Your task to perform on an android device: stop showing notifications on the lock screen Image 0: 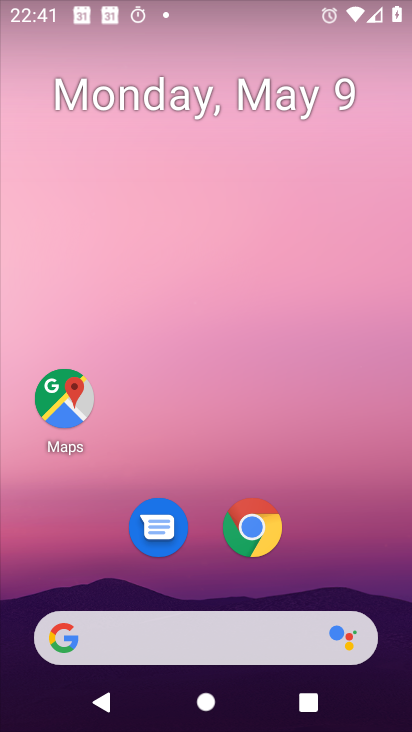
Step 0: drag from (191, 578) to (239, 97)
Your task to perform on an android device: stop showing notifications on the lock screen Image 1: 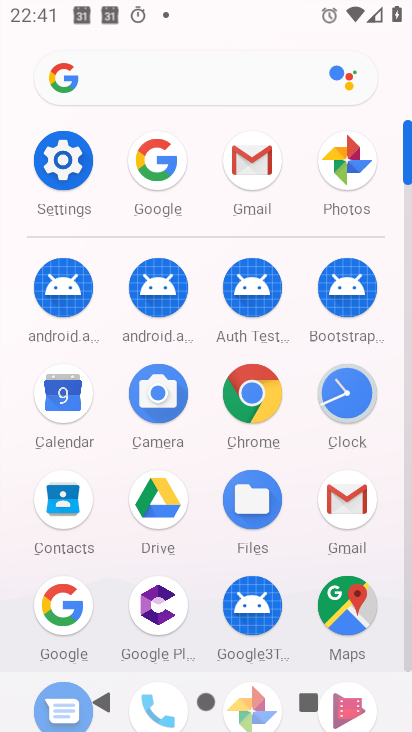
Step 1: click (62, 161)
Your task to perform on an android device: stop showing notifications on the lock screen Image 2: 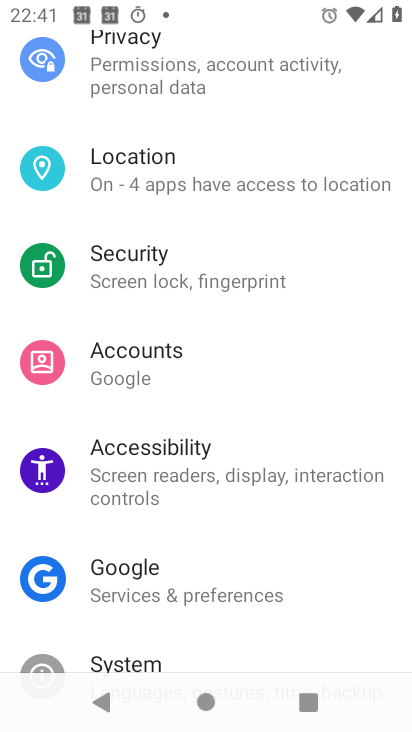
Step 2: drag from (228, 226) to (259, 614)
Your task to perform on an android device: stop showing notifications on the lock screen Image 3: 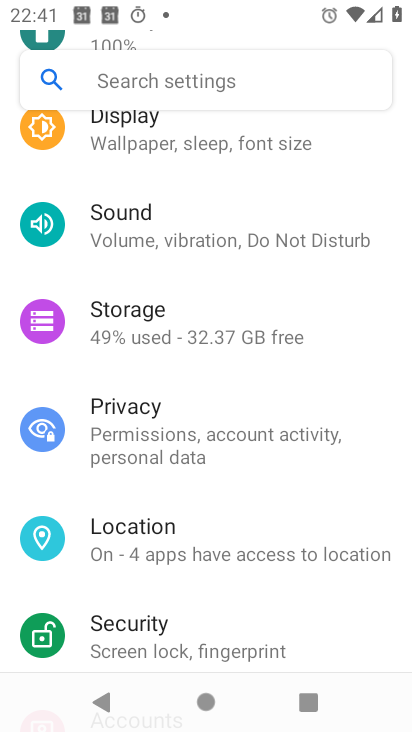
Step 3: drag from (173, 176) to (216, 558)
Your task to perform on an android device: stop showing notifications on the lock screen Image 4: 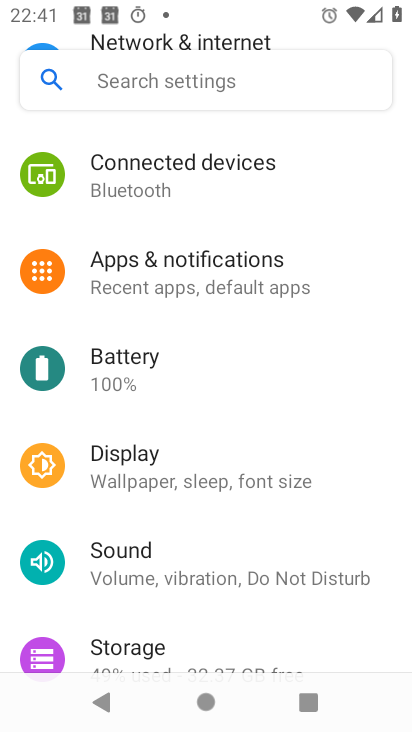
Step 4: click (175, 269)
Your task to perform on an android device: stop showing notifications on the lock screen Image 5: 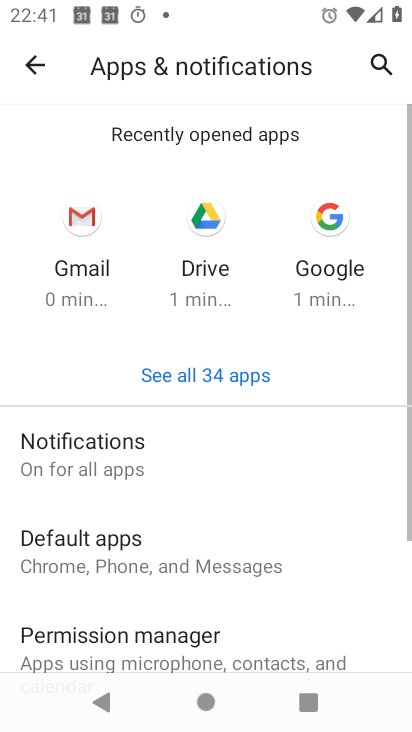
Step 5: click (145, 454)
Your task to perform on an android device: stop showing notifications on the lock screen Image 6: 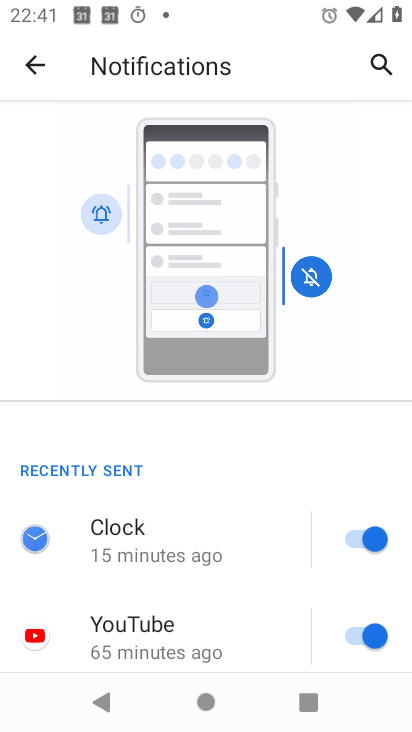
Step 6: drag from (190, 553) to (189, 110)
Your task to perform on an android device: stop showing notifications on the lock screen Image 7: 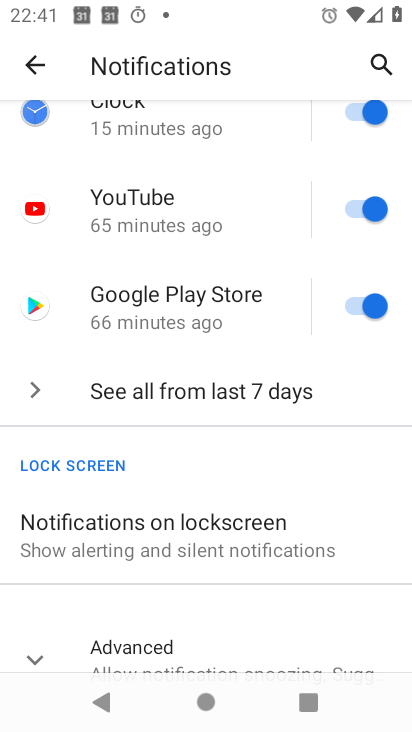
Step 7: click (129, 525)
Your task to perform on an android device: stop showing notifications on the lock screen Image 8: 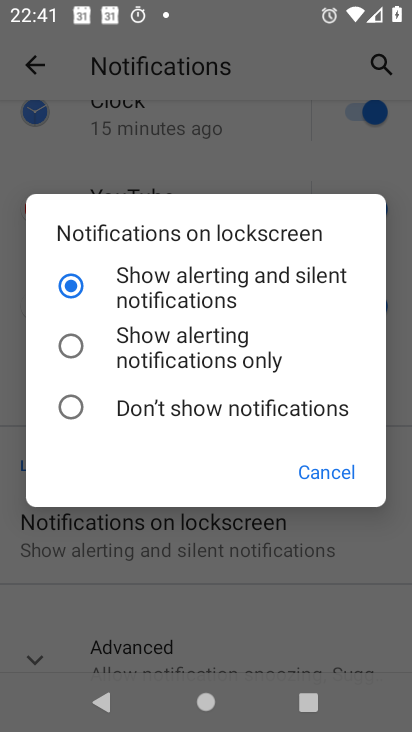
Step 8: click (68, 407)
Your task to perform on an android device: stop showing notifications on the lock screen Image 9: 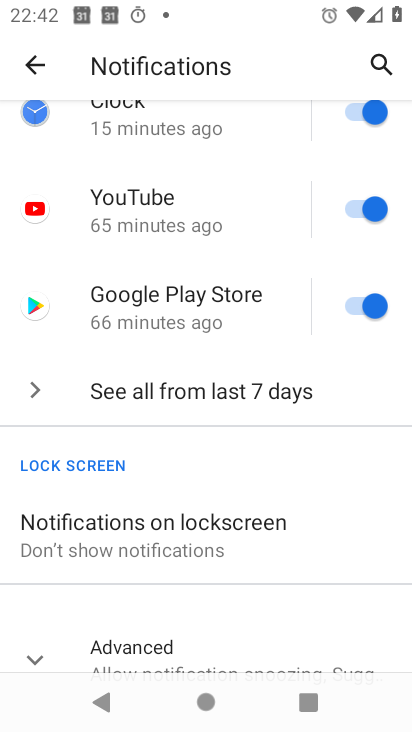
Step 9: task complete